Your task to perform on an android device: empty trash in the gmail app Image 0: 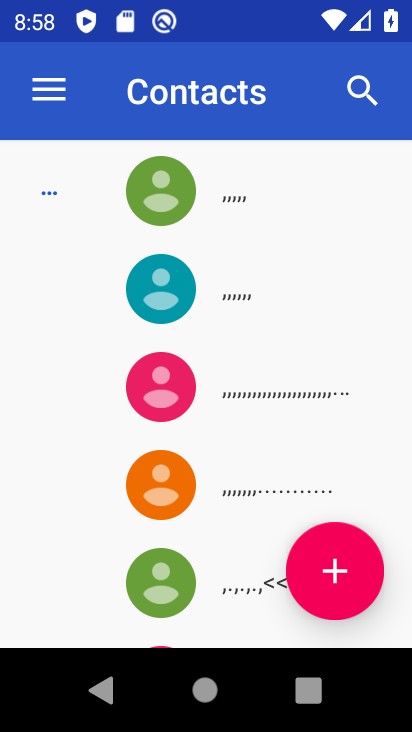
Step 0: press home button
Your task to perform on an android device: empty trash in the gmail app Image 1: 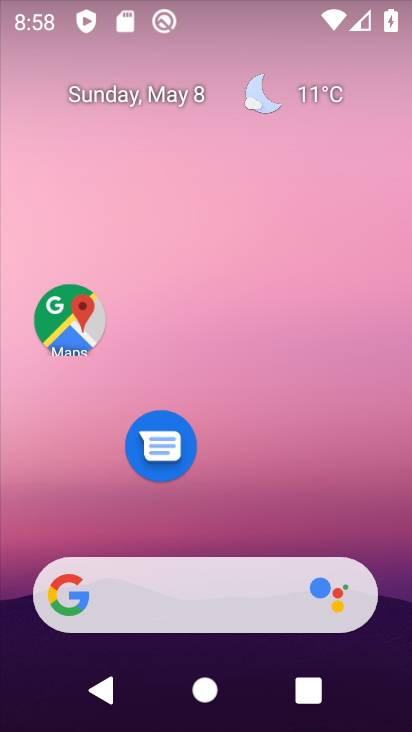
Step 1: drag from (301, 503) to (301, 41)
Your task to perform on an android device: empty trash in the gmail app Image 2: 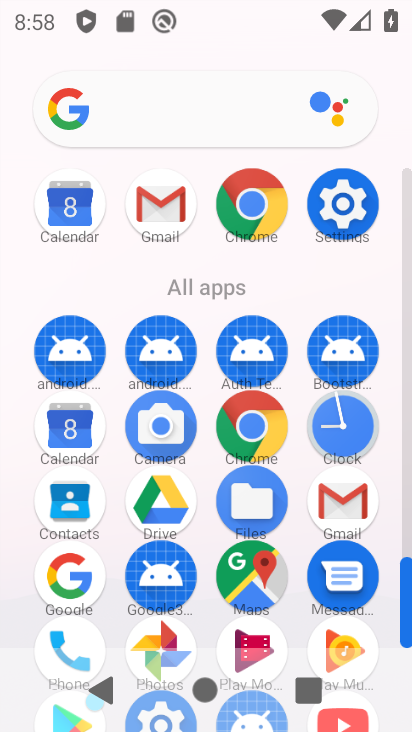
Step 2: click (338, 490)
Your task to perform on an android device: empty trash in the gmail app Image 3: 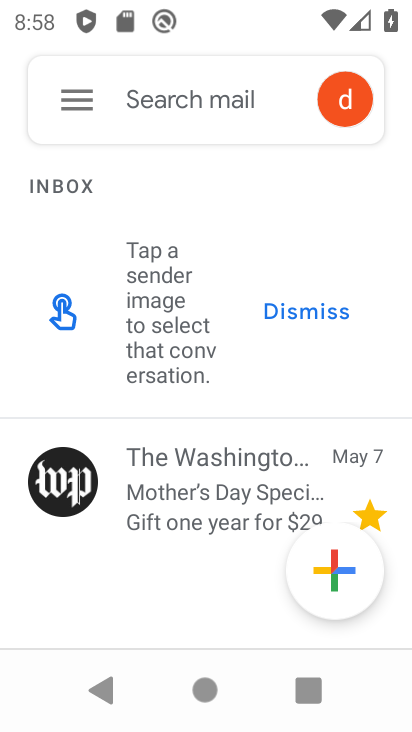
Step 3: click (86, 101)
Your task to perform on an android device: empty trash in the gmail app Image 4: 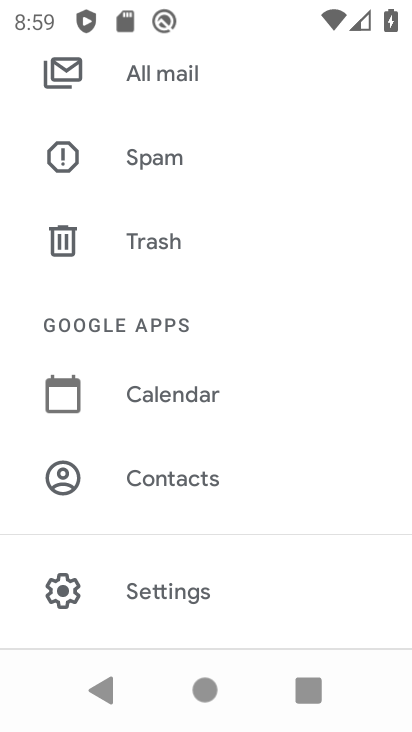
Step 4: click (186, 239)
Your task to perform on an android device: empty trash in the gmail app Image 5: 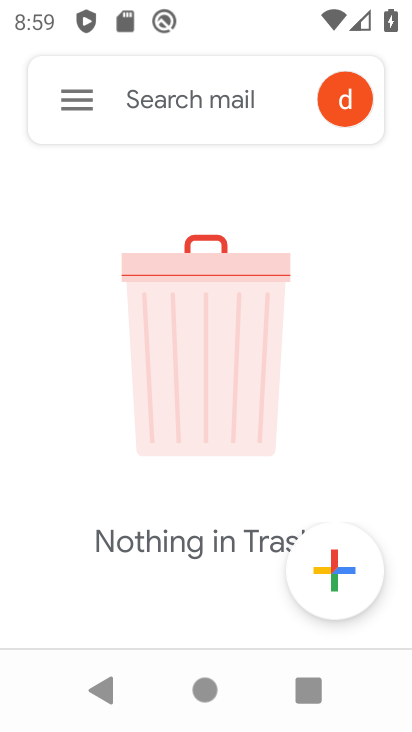
Step 5: task complete